Your task to perform on an android device: turn on airplane mode Image 0: 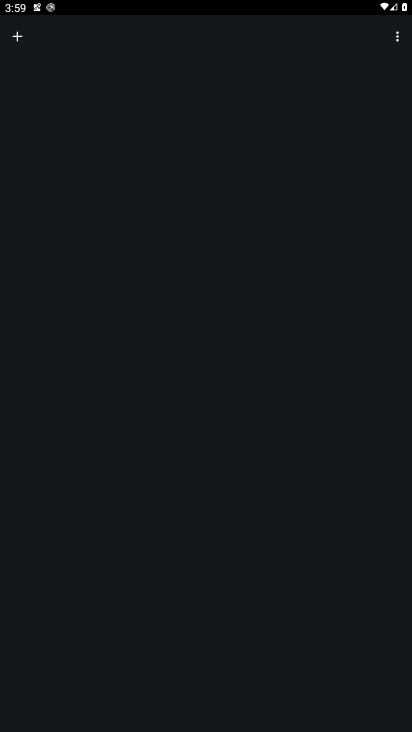
Step 0: press home button
Your task to perform on an android device: turn on airplane mode Image 1: 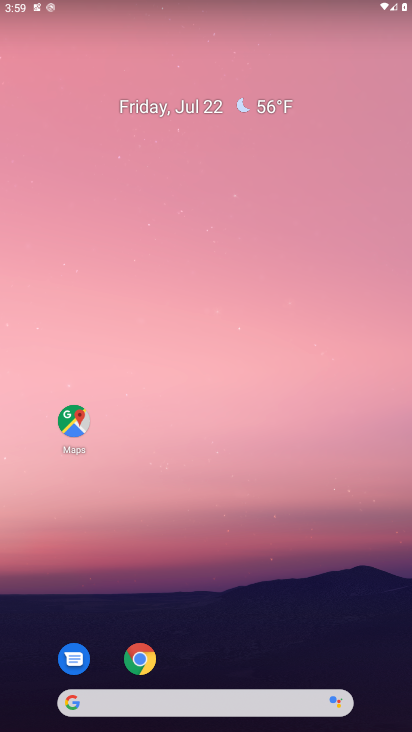
Step 1: drag from (191, 697) to (212, 306)
Your task to perform on an android device: turn on airplane mode Image 2: 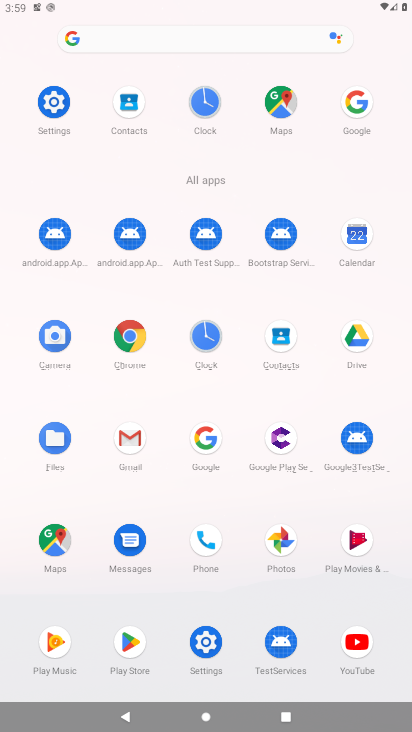
Step 2: click (48, 105)
Your task to perform on an android device: turn on airplane mode Image 3: 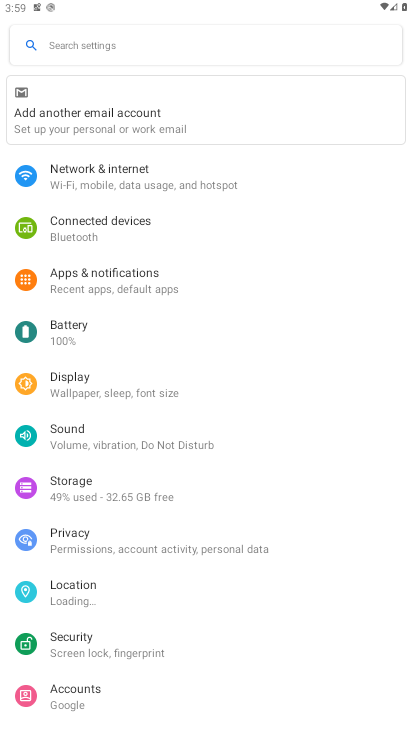
Step 3: click (107, 185)
Your task to perform on an android device: turn on airplane mode Image 4: 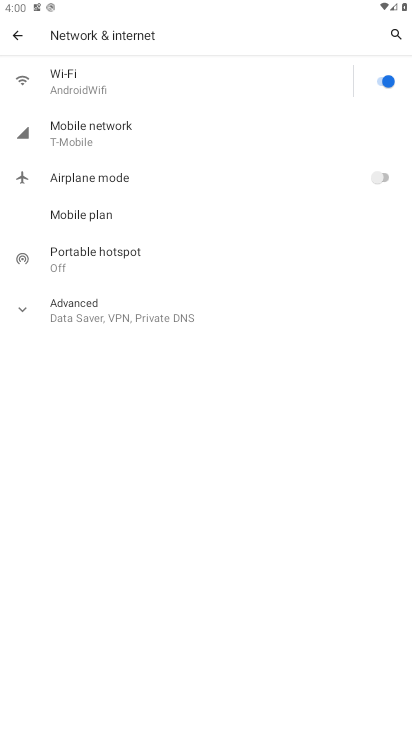
Step 4: click (383, 175)
Your task to perform on an android device: turn on airplane mode Image 5: 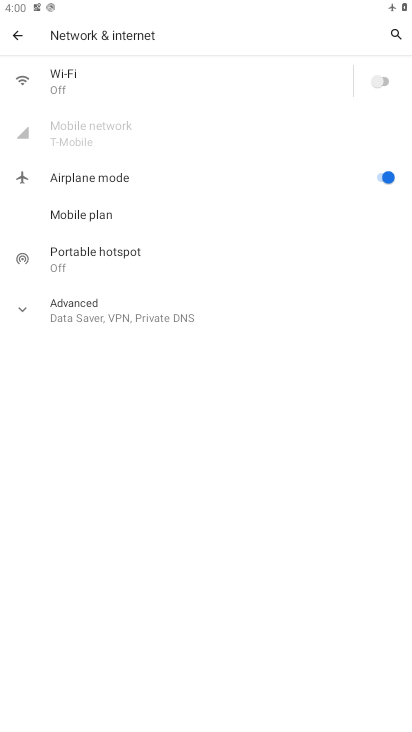
Step 5: task complete